Your task to perform on an android device: Open Chrome and go to the settings page Image 0: 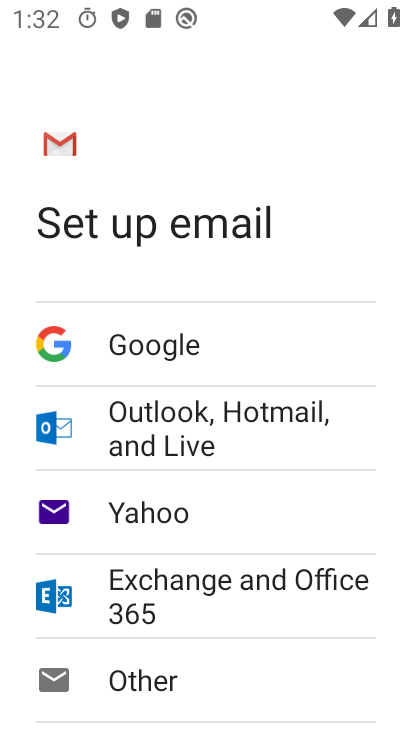
Step 0: press home button
Your task to perform on an android device: Open Chrome and go to the settings page Image 1: 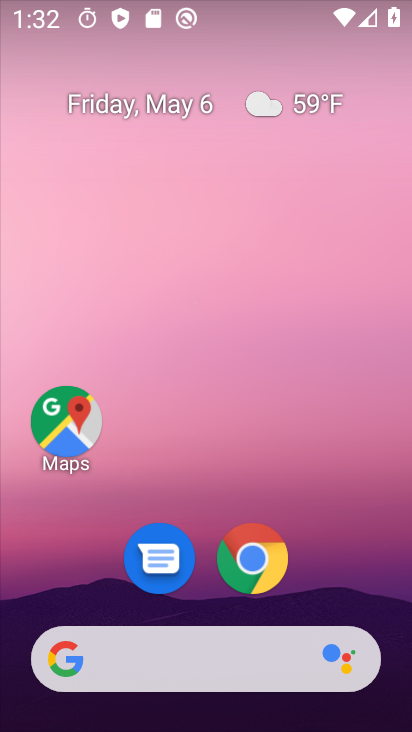
Step 1: click (252, 561)
Your task to perform on an android device: Open Chrome and go to the settings page Image 2: 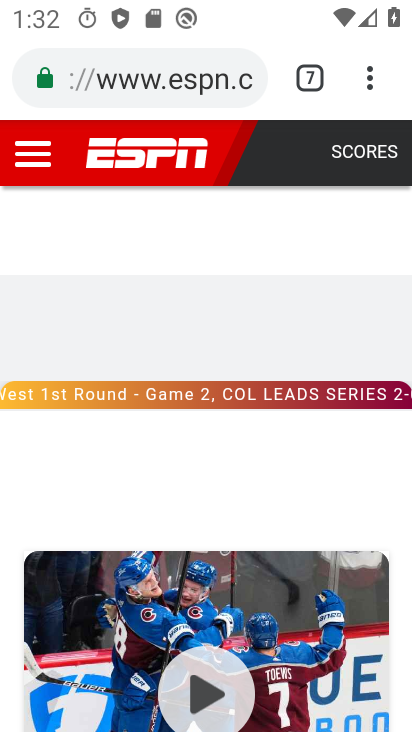
Step 2: click (368, 85)
Your task to perform on an android device: Open Chrome and go to the settings page Image 3: 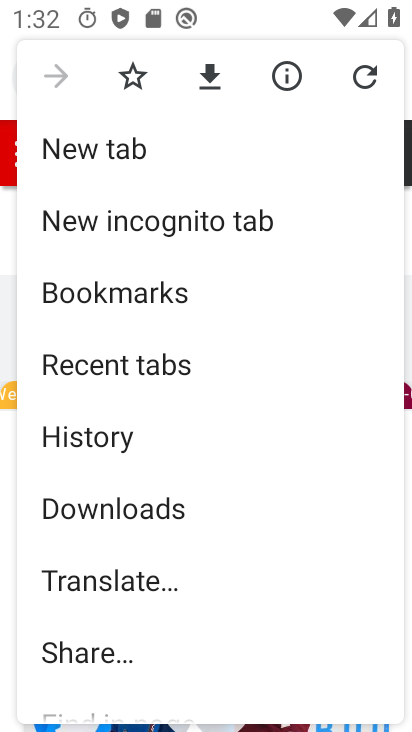
Step 3: drag from (127, 632) to (128, 281)
Your task to perform on an android device: Open Chrome and go to the settings page Image 4: 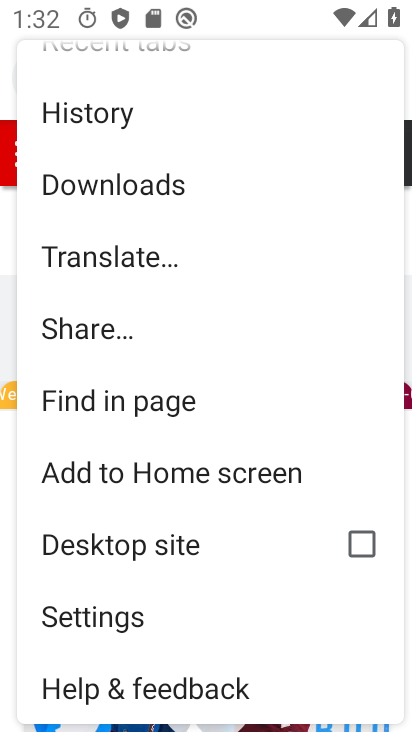
Step 4: click (117, 611)
Your task to perform on an android device: Open Chrome and go to the settings page Image 5: 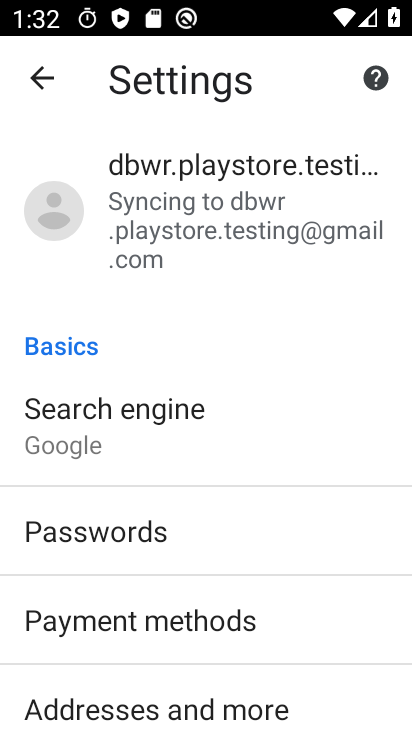
Step 5: task complete